Your task to perform on an android device: turn vacation reply on in the gmail app Image 0: 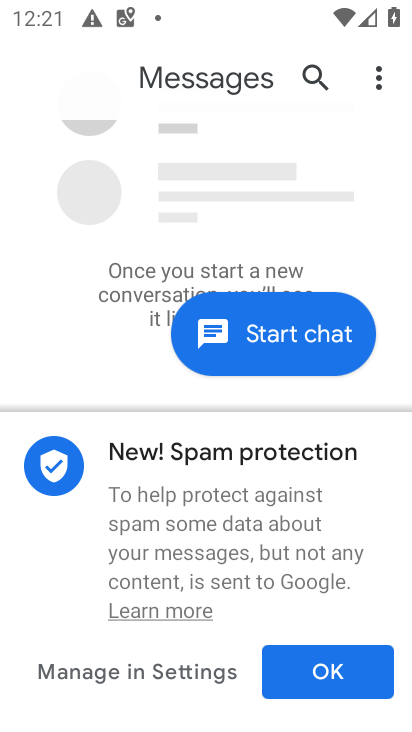
Step 0: press home button
Your task to perform on an android device: turn vacation reply on in the gmail app Image 1: 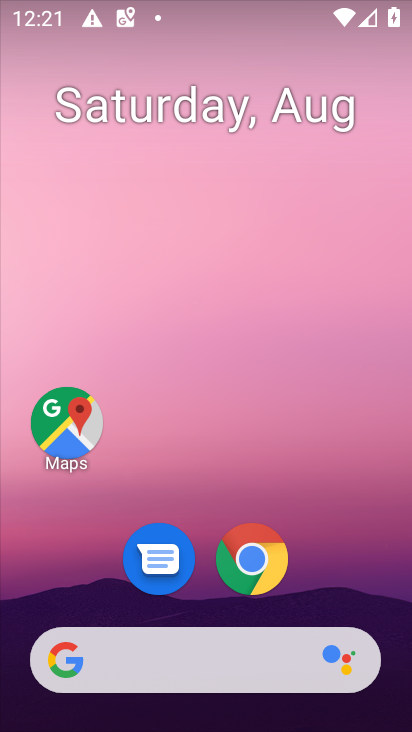
Step 1: drag from (392, 594) to (296, 119)
Your task to perform on an android device: turn vacation reply on in the gmail app Image 2: 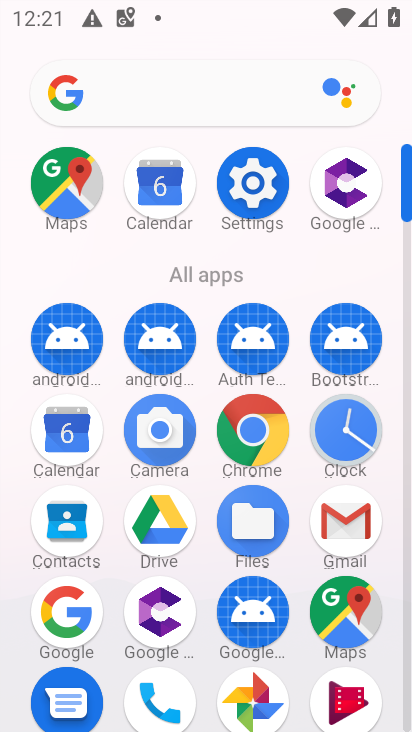
Step 2: click (336, 534)
Your task to perform on an android device: turn vacation reply on in the gmail app Image 3: 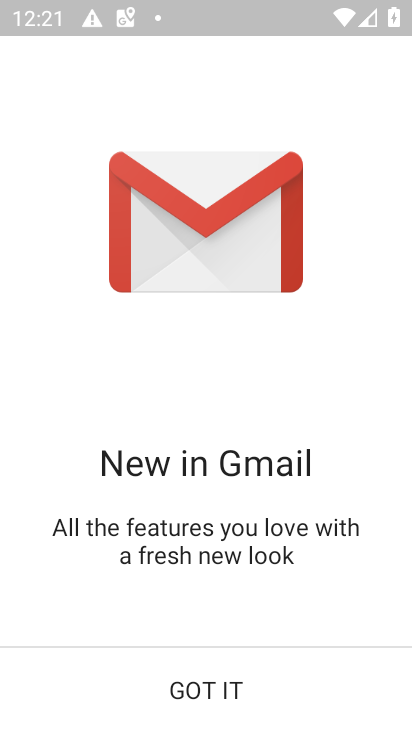
Step 3: click (213, 703)
Your task to perform on an android device: turn vacation reply on in the gmail app Image 4: 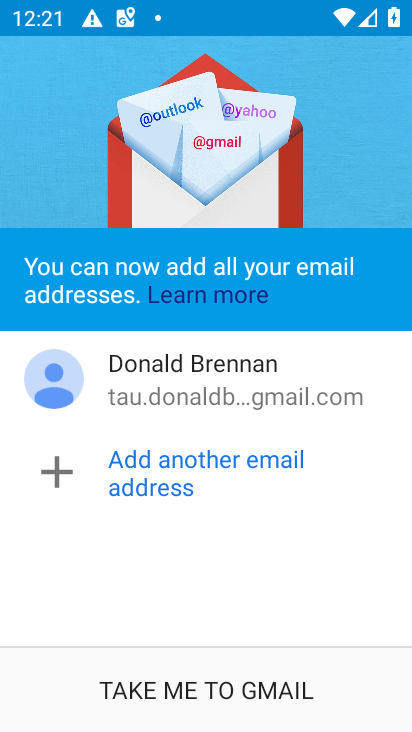
Step 4: click (213, 703)
Your task to perform on an android device: turn vacation reply on in the gmail app Image 5: 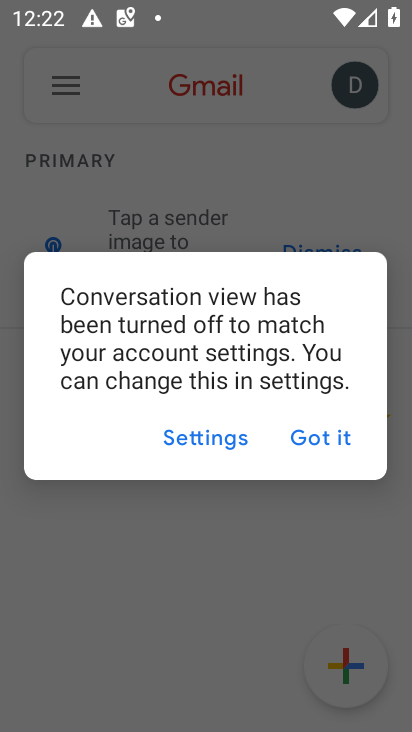
Step 5: click (339, 434)
Your task to perform on an android device: turn vacation reply on in the gmail app Image 6: 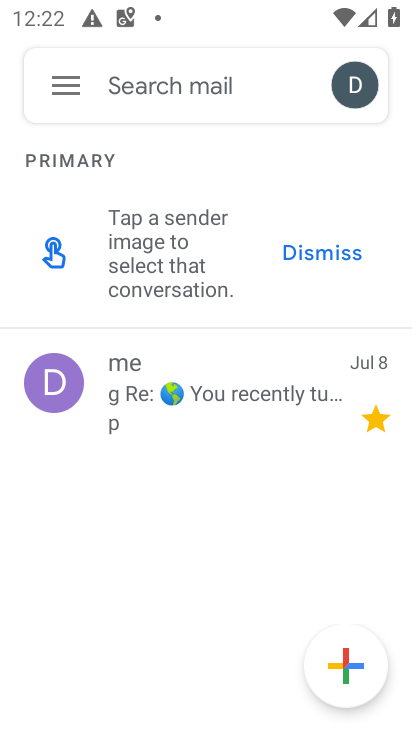
Step 6: click (72, 78)
Your task to perform on an android device: turn vacation reply on in the gmail app Image 7: 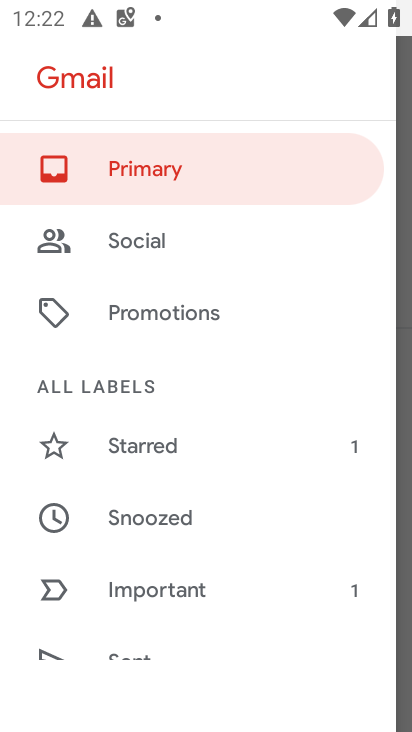
Step 7: drag from (272, 621) to (217, 19)
Your task to perform on an android device: turn vacation reply on in the gmail app Image 8: 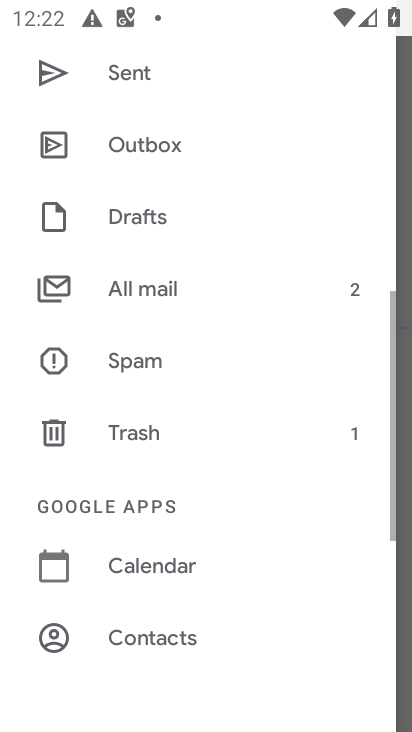
Step 8: drag from (280, 588) to (225, 93)
Your task to perform on an android device: turn vacation reply on in the gmail app Image 9: 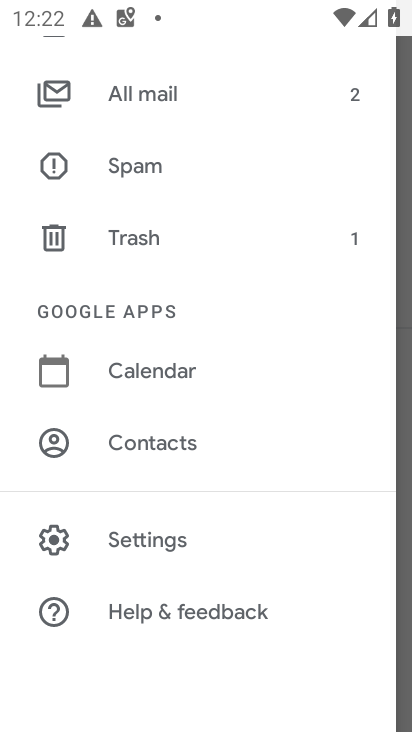
Step 9: click (153, 538)
Your task to perform on an android device: turn vacation reply on in the gmail app Image 10: 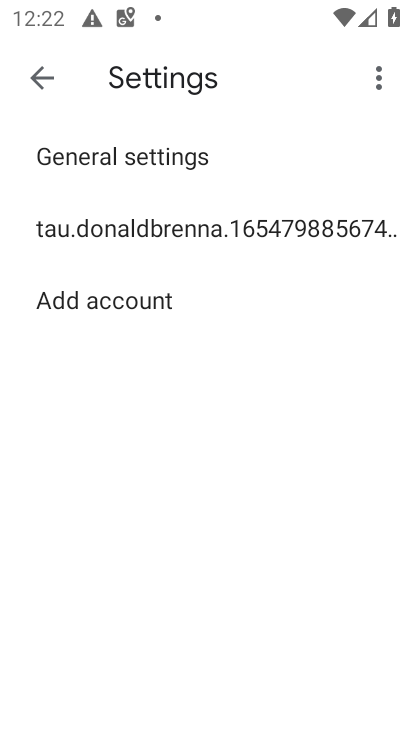
Step 10: click (296, 240)
Your task to perform on an android device: turn vacation reply on in the gmail app Image 11: 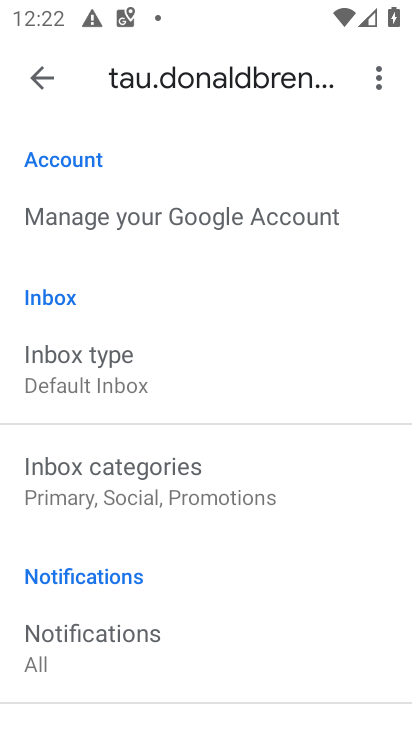
Step 11: drag from (321, 594) to (216, 18)
Your task to perform on an android device: turn vacation reply on in the gmail app Image 12: 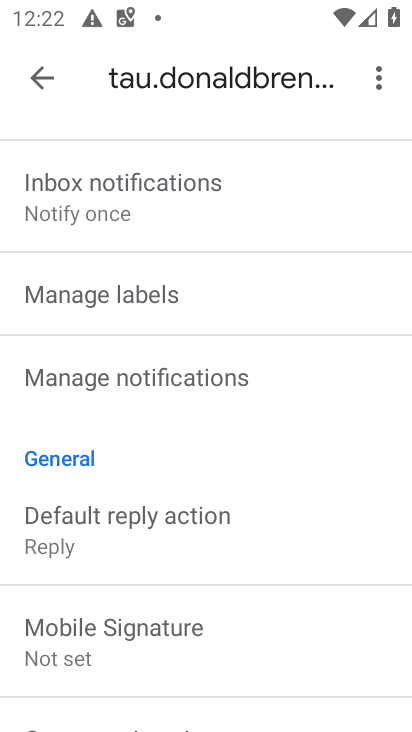
Step 12: drag from (268, 573) to (180, 2)
Your task to perform on an android device: turn vacation reply on in the gmail app Image 13: 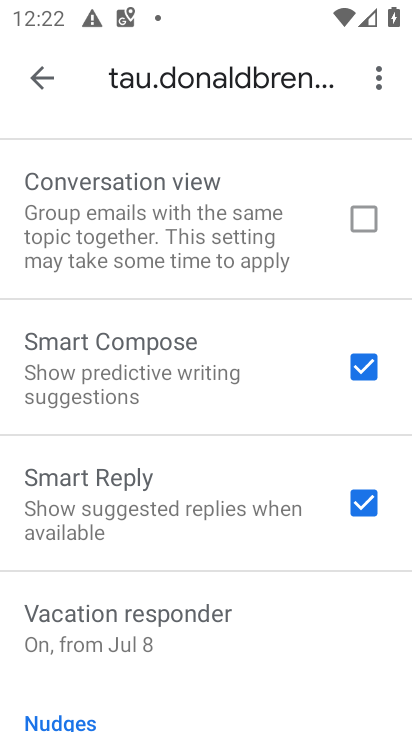
Step 13: click (209, 623)
Your task to perform on an android device: turn vacation reply on in the gmail app Image 14: 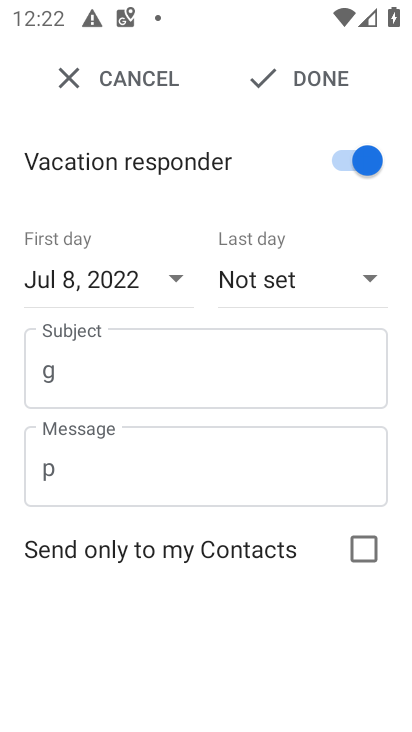
Step 14: click (261, 380)
Your task to perform on an android device: turn vacation reply on in the gmail app Image 15: 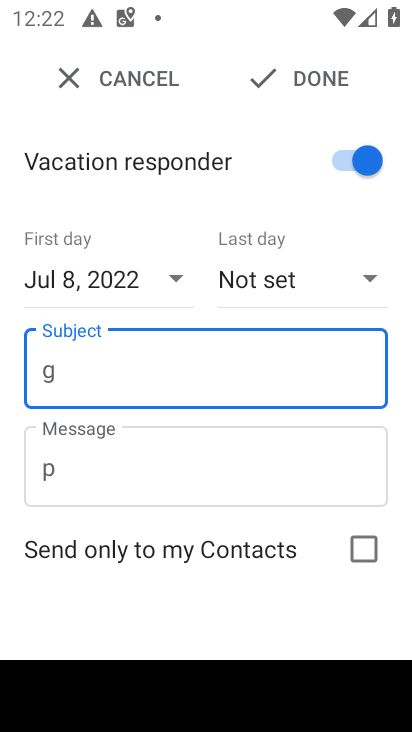
Step 15: type "bhbh"
Your task to perform on an android device: turn vacation reply on in the gmail app Image 16: 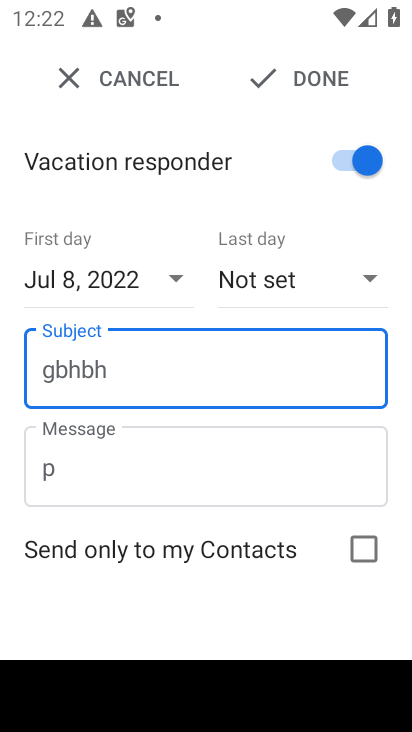
Step 16: click (325, 68)
Your task to perform on an android device: turn vacation reply on in the gmail app Image 17: 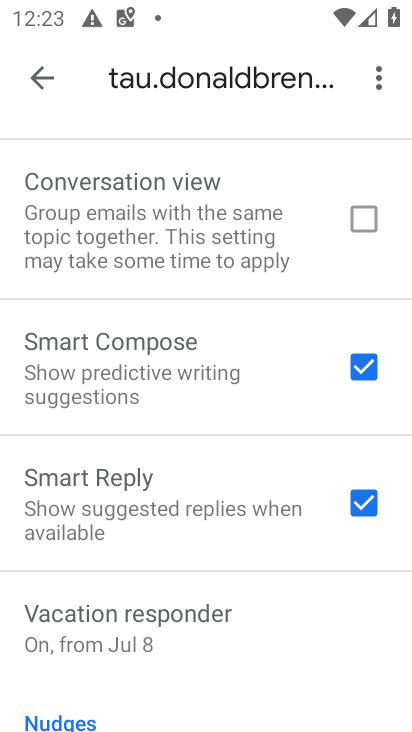
Step 17: task complete